Your task to perform on an android device: change the clock display to digital Image 0: 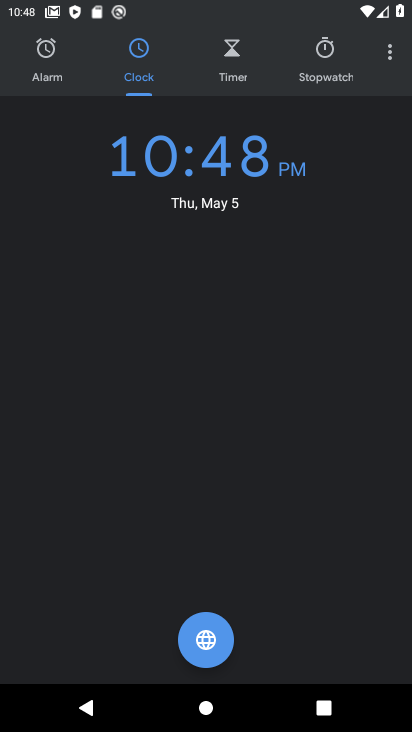
Step 0: click (389, 48)
Your task to perform on an android device: change the clock display to digital Image 1: 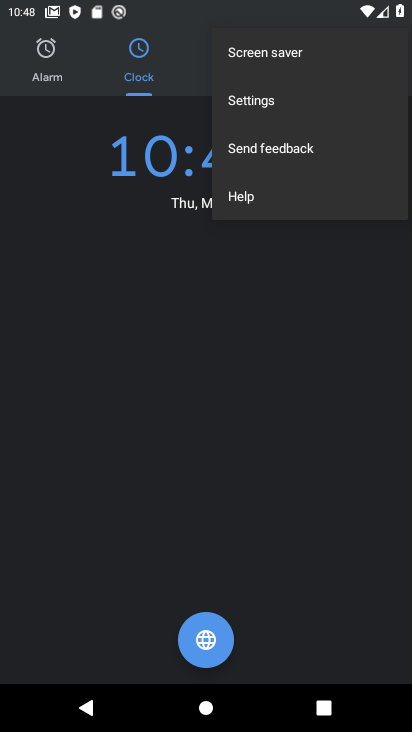
Step 1: click (272, 107)
Your task to perform on an android device: change the clock display to digital Image 2: 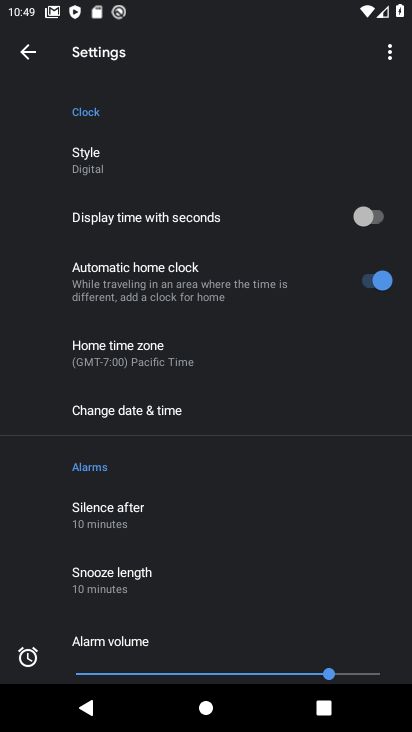
Step 2: task complete